Your task to perform on an android device: toggle notifications settings in the gmail app Image 0: 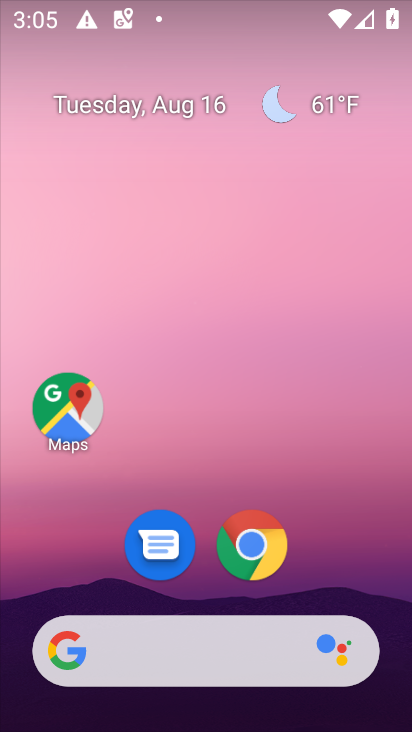
Step 0: drag from (204, 637) to (194, 180)
Your task to perform on an android device: toggle notifications settings in the gmail app Image 1: 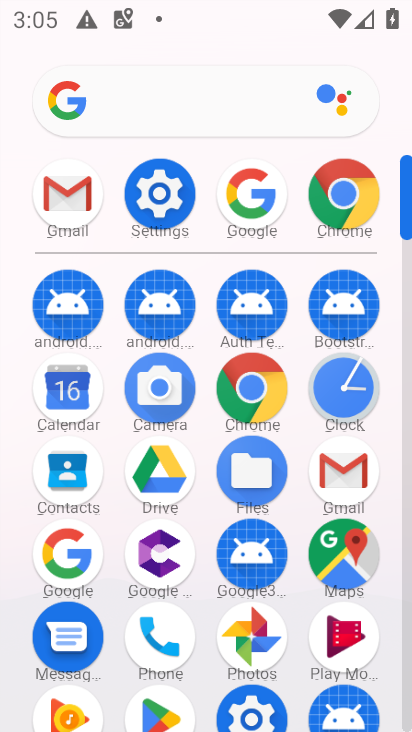
Step 1: click (64, 201)
Your task to perform on an android device: toggle notifications settings in the gmail app Image 2: 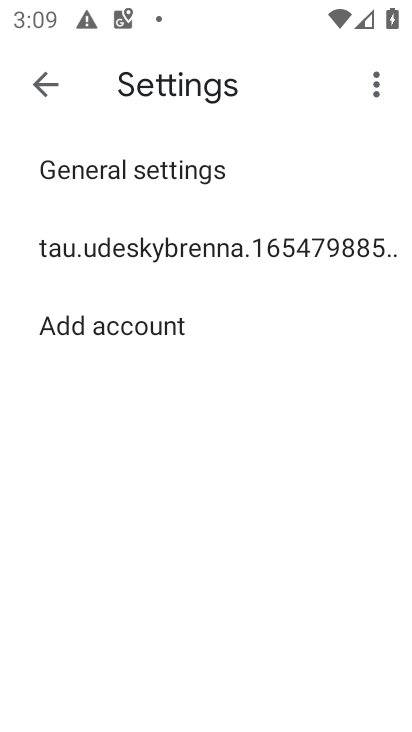
Step 2: click (215, 253)
Your task to perform on an android device: toggle notifications settings in the gmail app Image 3: 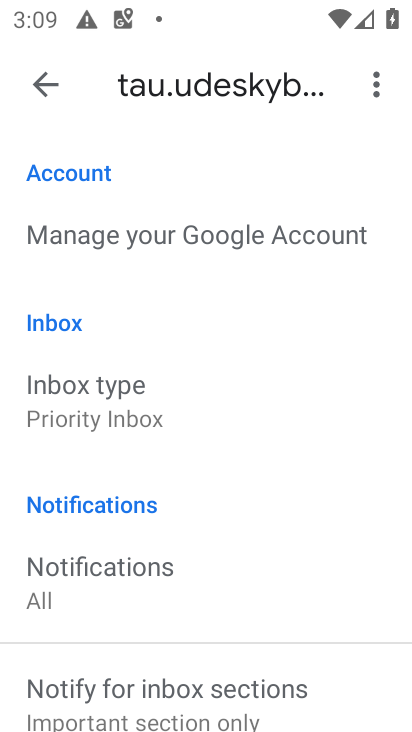
Step 3: drag from (186, 713) to (186, 260)
Your task to perform on an android device: toggle notifications settings in the gmail app Image 4: 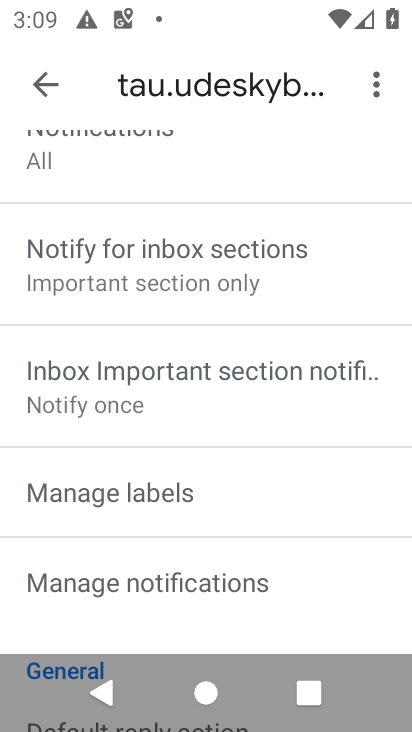
Step 4: click (107, 584)
Your task to perform on an android device: toggle notifications settings in the gmail app Image 5: 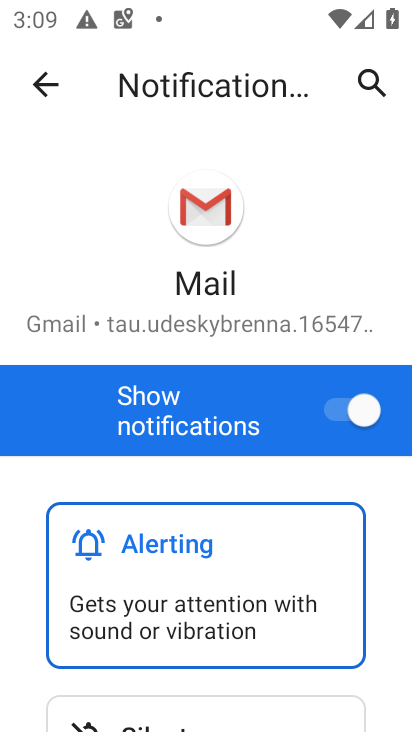
Step 5: click (334, 407)
Your task to perform on an android device: toggle notifications settings in the gmail app Image 6: 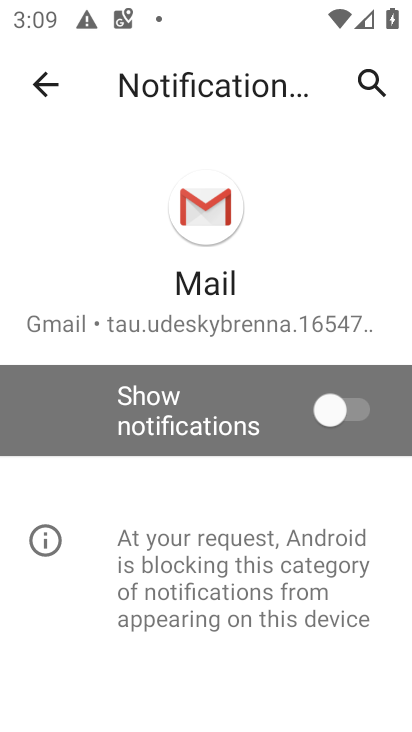
Step 6: task complete